Your task to perform on an android device: allow cookies in the chrome app Image 0: 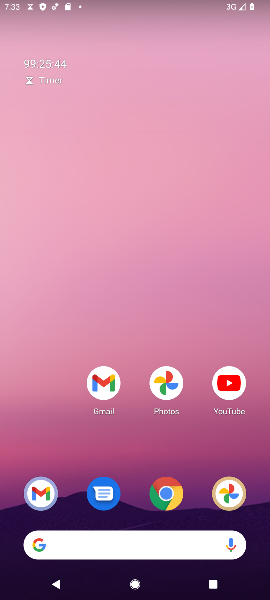
Step 0: drag from (167, 531) to (125, 126)
Your task to perform on an android device: allow cookies in the chrome app Image 1: 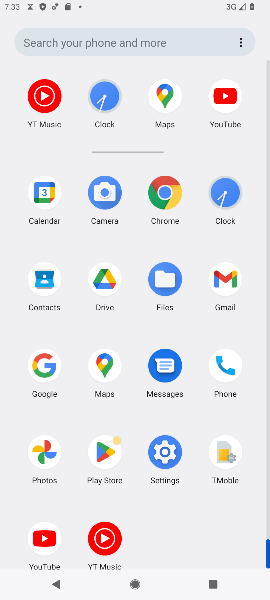
Step 1: click (166, 183)
Your task to perform on an android device: allow cookies in the chrome app Image 2: 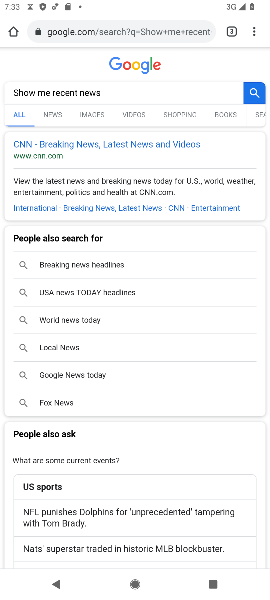
Step 2: click (253, 18)
Your task to perform on an android device: allow cookies in the chrome app Image 3: 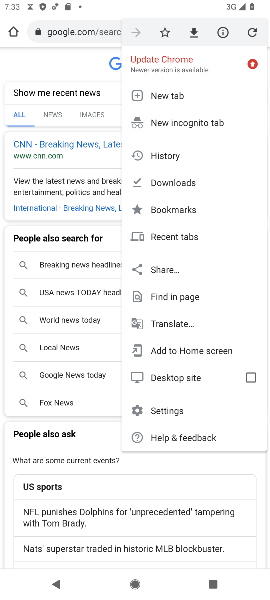
Step 3: click (170, 407)
Your task to perform on an android device: allow cookies in the chrome app Image 4: 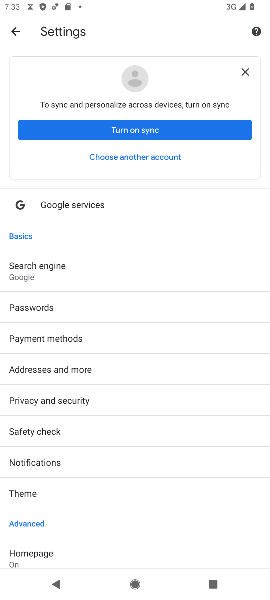
Step 4: drag from (130, 489) to (130, 207)
Your task to perform on an android device: allow cookies in the chrome app Image 5: 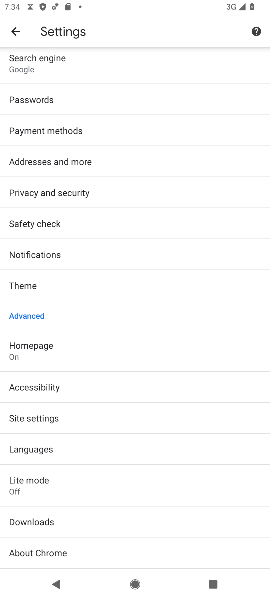
Step 5: click (60, 417)
Your task to perform on an android device: allow cookies in the chrome app Image 6: 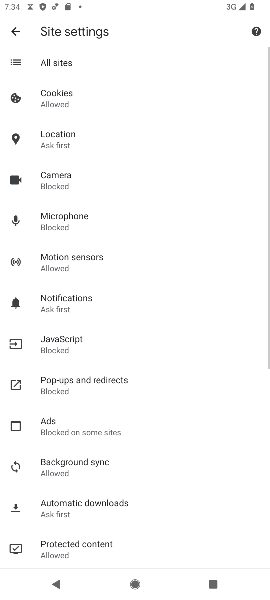
Step 6: click (74, 98)
Your task to perform on an android device: allow cookies in the chrome app Image 7: 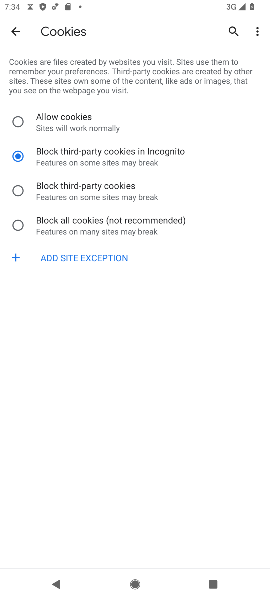
Step 7: click (30, 119)
Your task to perform on an android device: allow cookies in the chrome app Image 8: 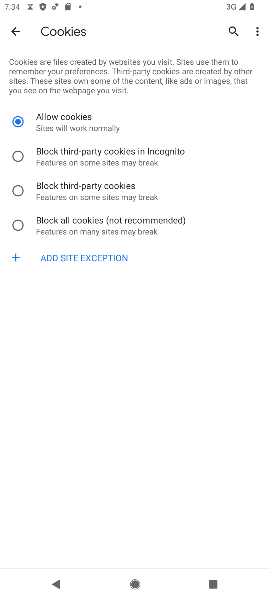
Step 8: task complete